Your task to perform on an android device: See recent photos Image 0: 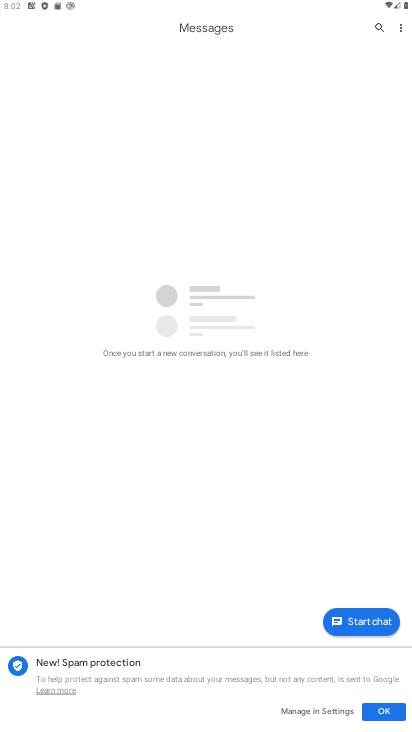
Step 0: press home button
Your task to perform on an android device: See recent photos Image 1: 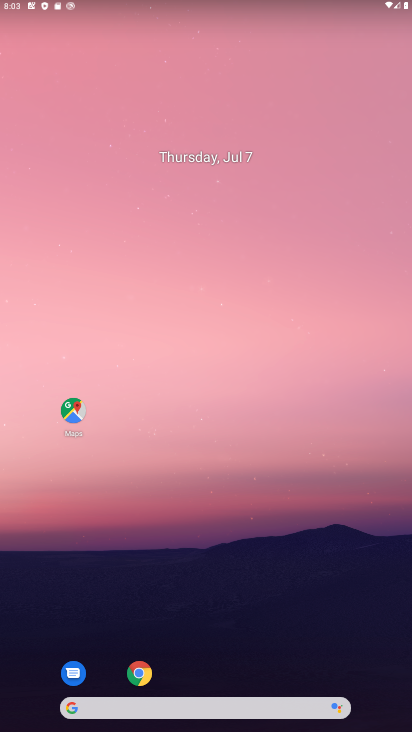
Step 1: drag from (229, 682) to (175, 111)
Your task to perform on an android device: See recent photos Image 2: 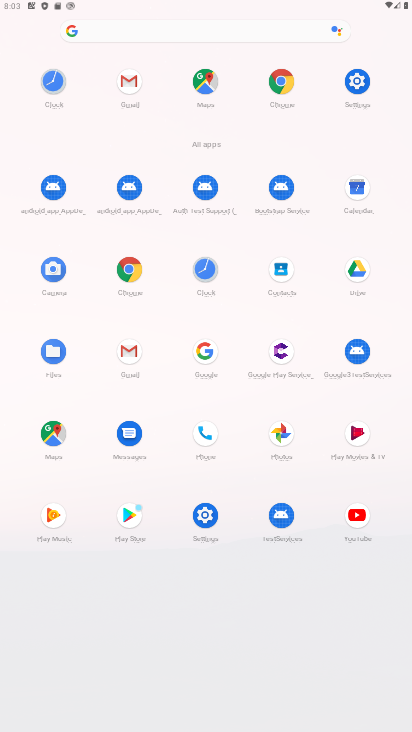
Step 2: click (279, 442)
Your task to perform on an android device: See recent photos Image 3: 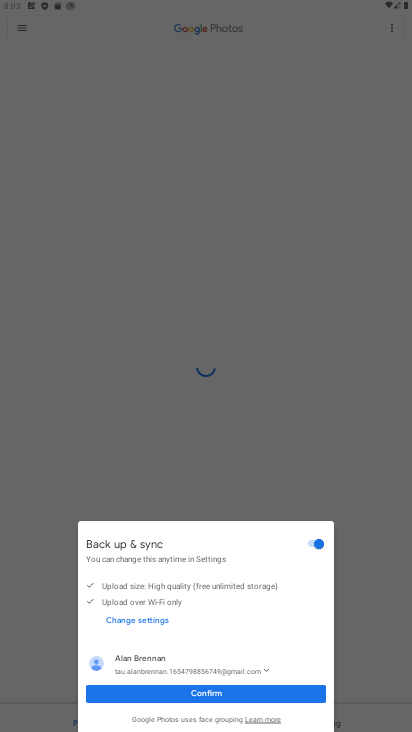
Step 3: click (208, 690)
Your task to perform on an android device: See recent photos Image 4: 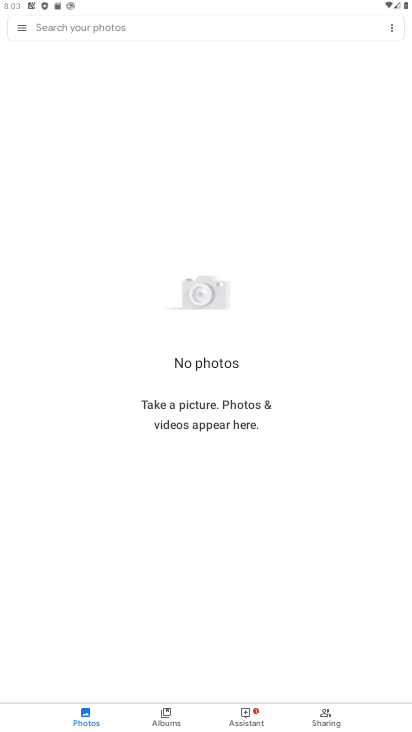
Step 4: click (77, 713)
Your task to perform on an android device: See recent photos Image 5: 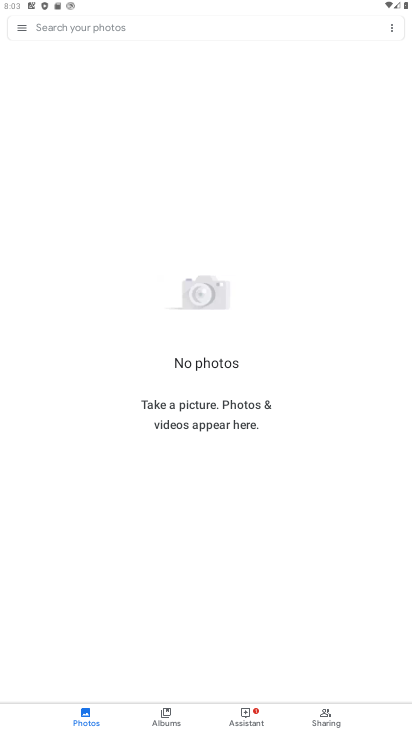
Step 5: task complete